Your task to perform on an android device: choose inbox layout in the gmail app Image 0: 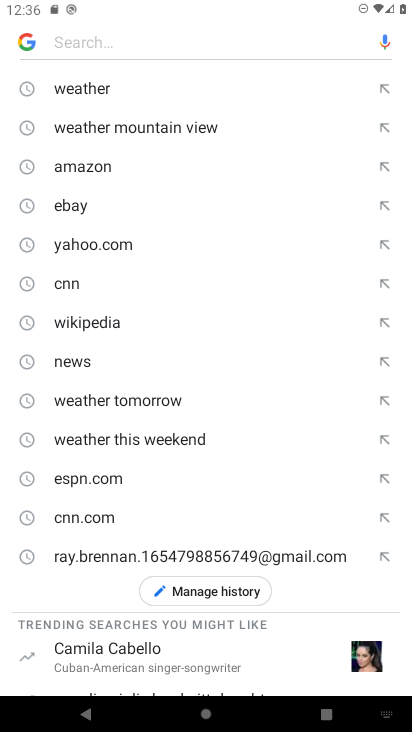
Step 0: press back button
Your task to perform on an android device: choose inbox layout in the gmail app Image 1: 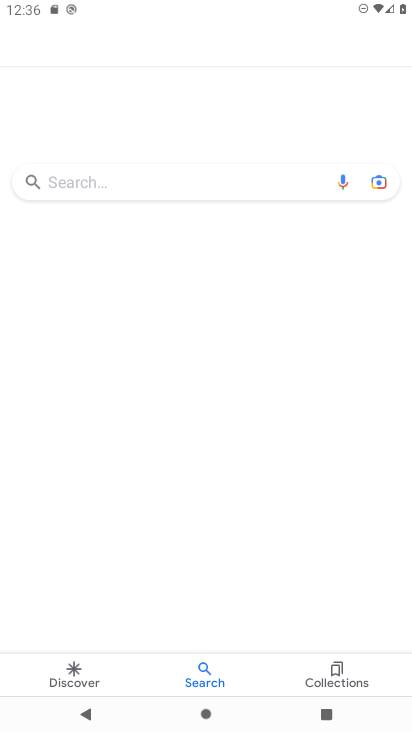
Step 1: press back button
Your task to perform on an android device: choose inbox layout in the gmail app Image 2: 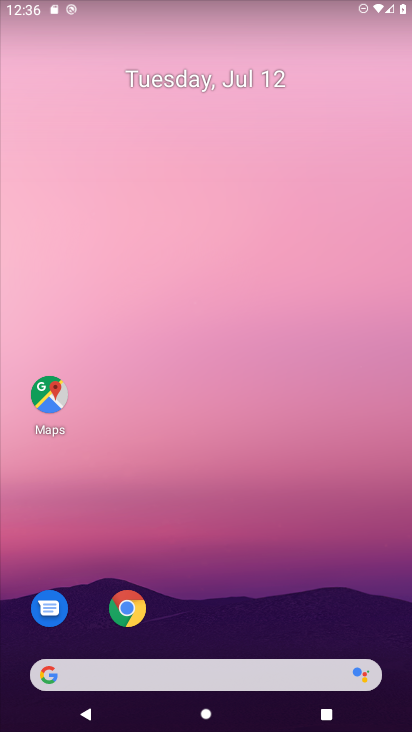
Step 2: drag from (185, 631) to (182, 70)
Your task to perform on an android device: choose inbox layout in the gmail app Image 3: 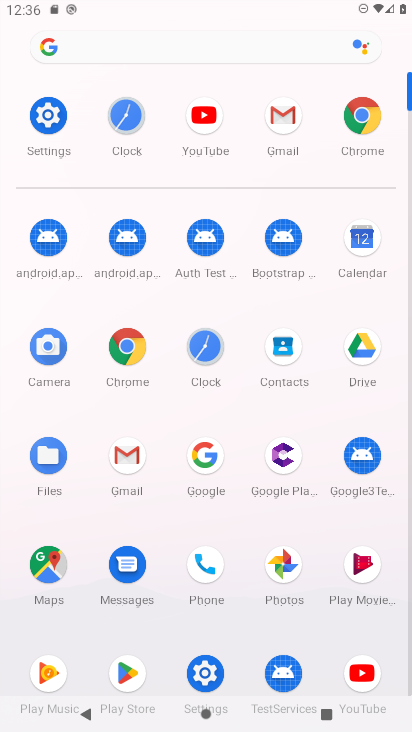
Step 3: click (131, 456)
Your task to perform on an android device: choose inbox layout in the gmail app Image 4: 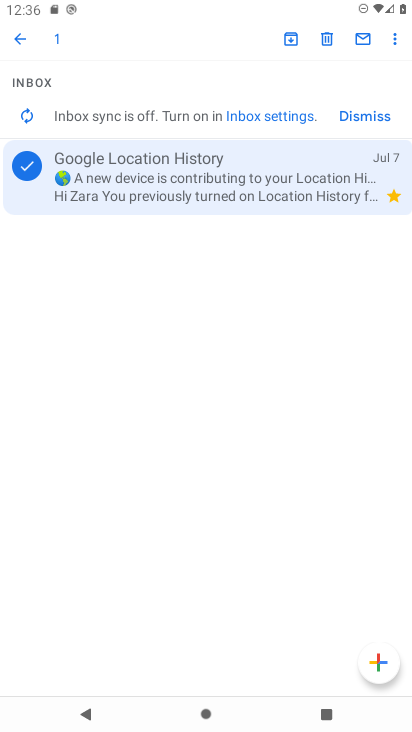
Step 4: click (21, 43)
Your task to perform on an android device: choose inbox layout in the gmail app Image 5: 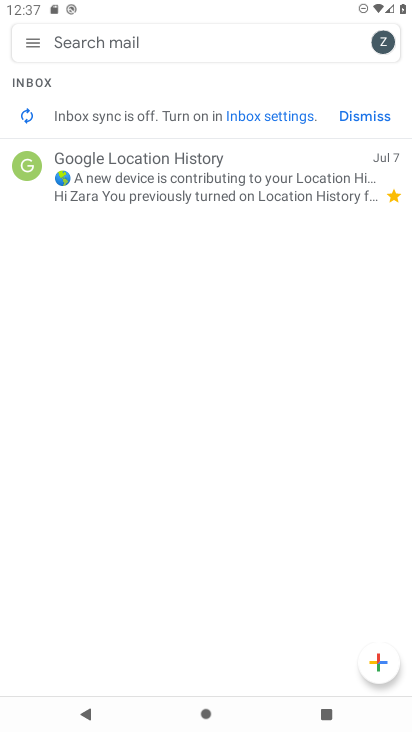
Step 5: task complete